Your task to perform on an android device: stop showing notifications on the lock screen Image 0: 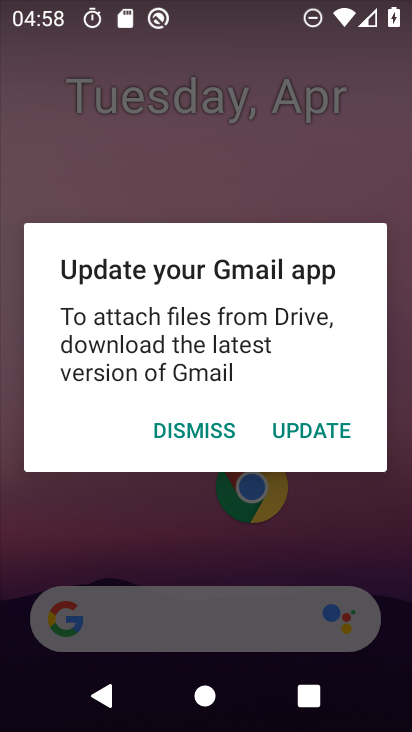
Step 0: click (207, 424)
Your task to perform on an android device: stop showing notifications on the lock screen Image 1: 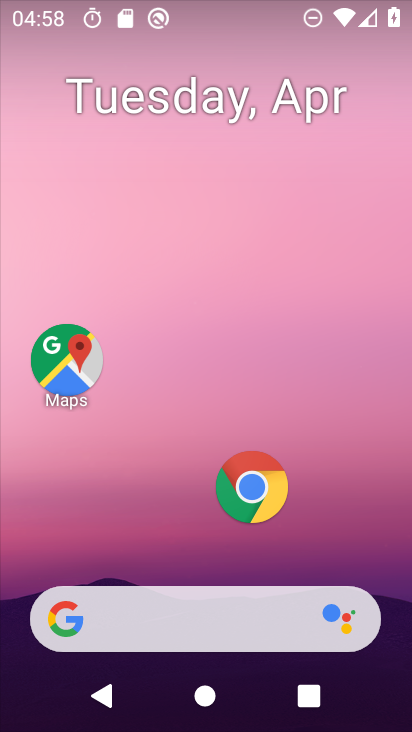
Step 1: drag from (211, 467) to (282, 18)
Your task to perform on an android device: stop showing notifications on the lock screen Image 2: 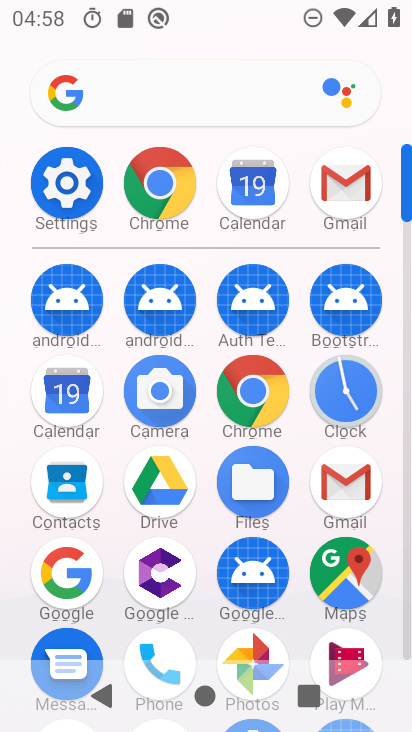
Step 2: click (52, 188)
Your task to perform on an android device: stop showing notifications on the lock screen Image 3: 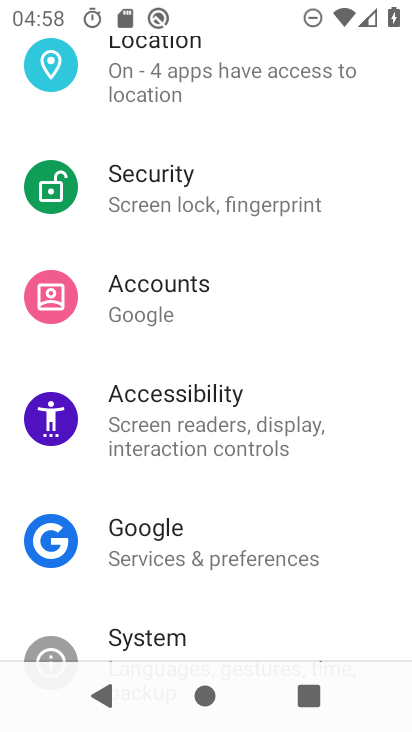
Step 3: drag from (191, 130) to (174, 420)
Your task to perform on an android device: stop showing notifications on the lock screen Image 4: 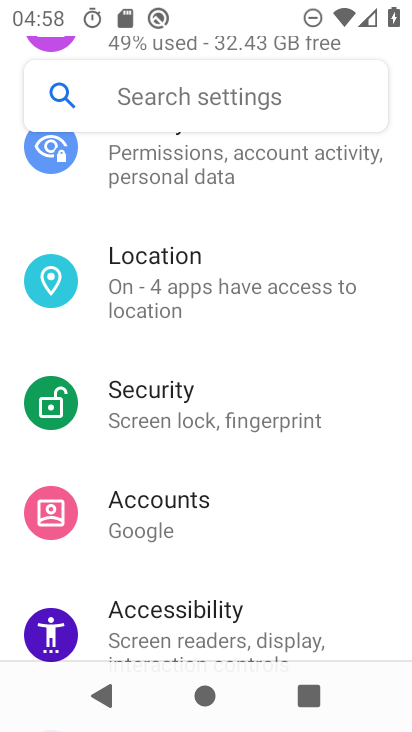
Step 4: drag from (180, 210) to (180, 616)
Your task to perform on an android device: stop showing notifications on the lock screen Image 5: 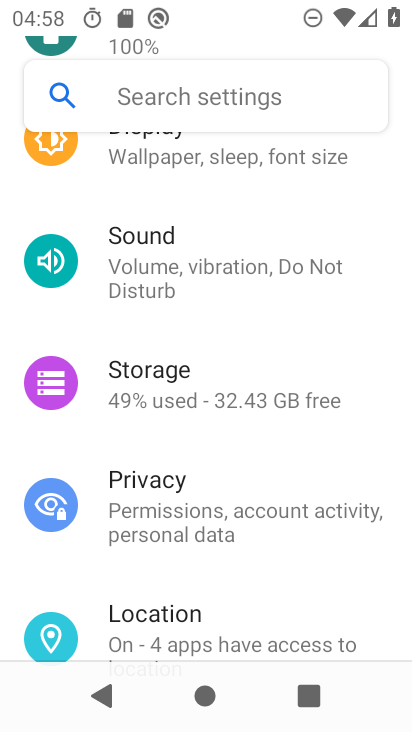
Step 5: drag from (203, 233) to (186, 639)
Your task to perform on an android device: stop showing notifications on the lock screen Image 6: 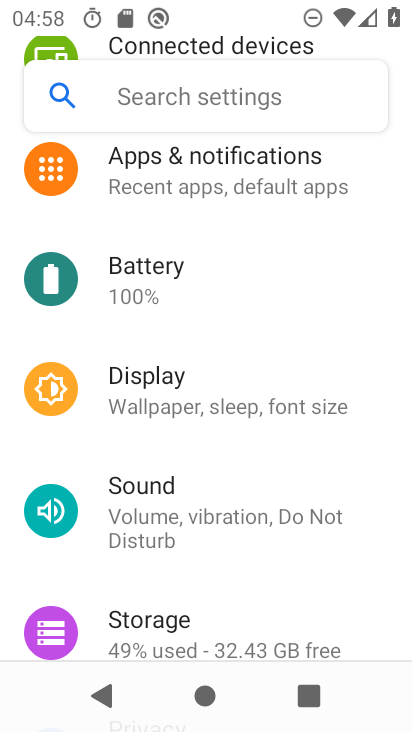
Step 6: click (213, 184)
Your task to perform on an android device: stop showing notifications on the lock screen Image 7: 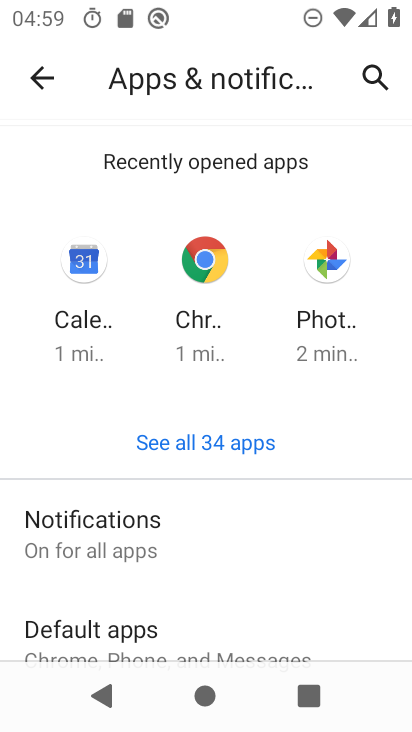
Step 7: drag from (166, 598) to (278, 93)
Your task to perform on an android device: stop showing notifications on the lock screen Image 8: 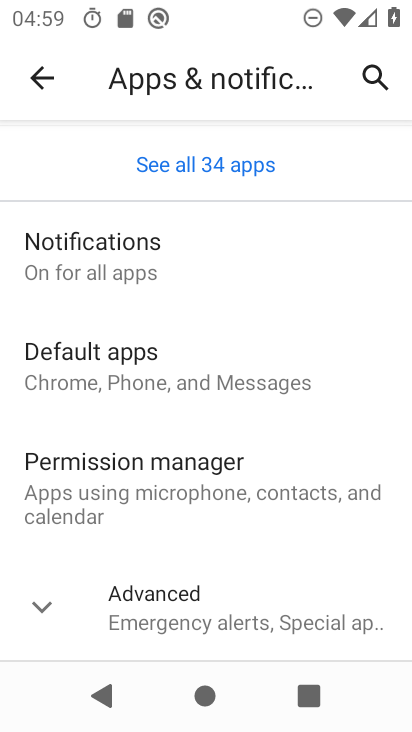
Step 8: click (171, 264)
Your task to perform on an android device: stop showing notifications on the lock screen Image 9: 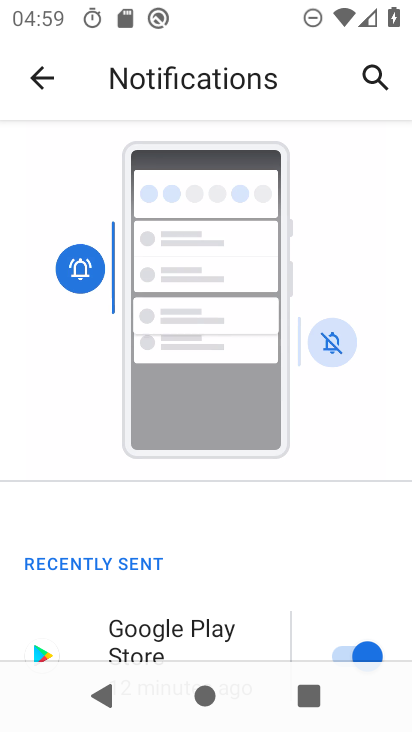
Step 9: drag from (172, 602) to (264, 176)
Your task to perform on an android device: stop showing notifications on the lock screen Image 10: 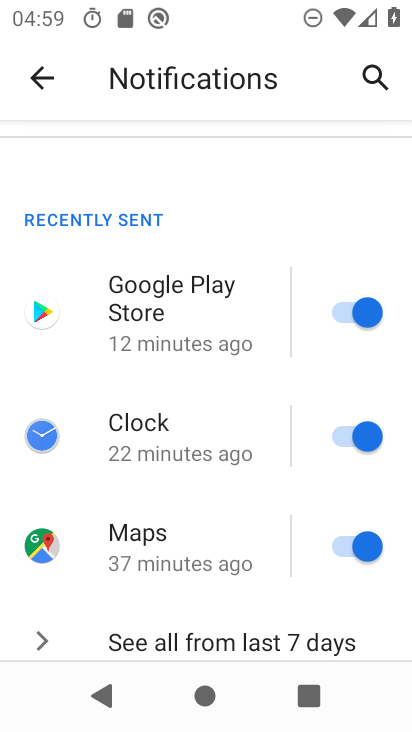
Step 10: drag from (216, 548) to (308, 77)
Your task to perform on an android device: stop showing notifications on the lock screen Image 11: 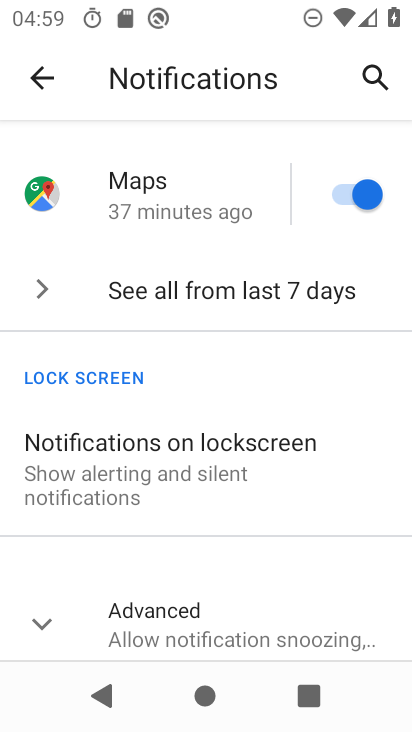
Step 11: click (214, 467)
Your task to perform on an android device: stop showing notifications on the lock screen Image 12: 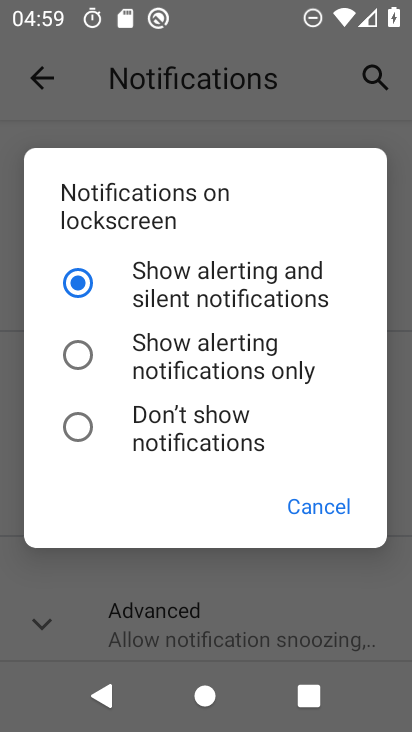
Step 12: click (51, 434)
Your task to perform on an android device: stop showing notifications on the lock screen Image 13: 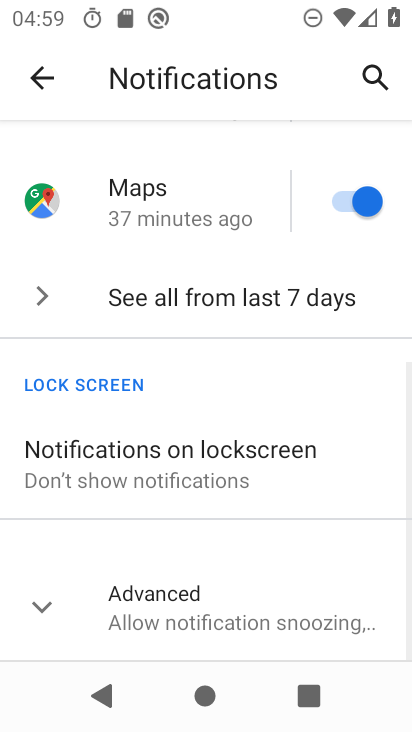
Step 13: task complete